Your task to perform on an android device: What time is it? Image 0: 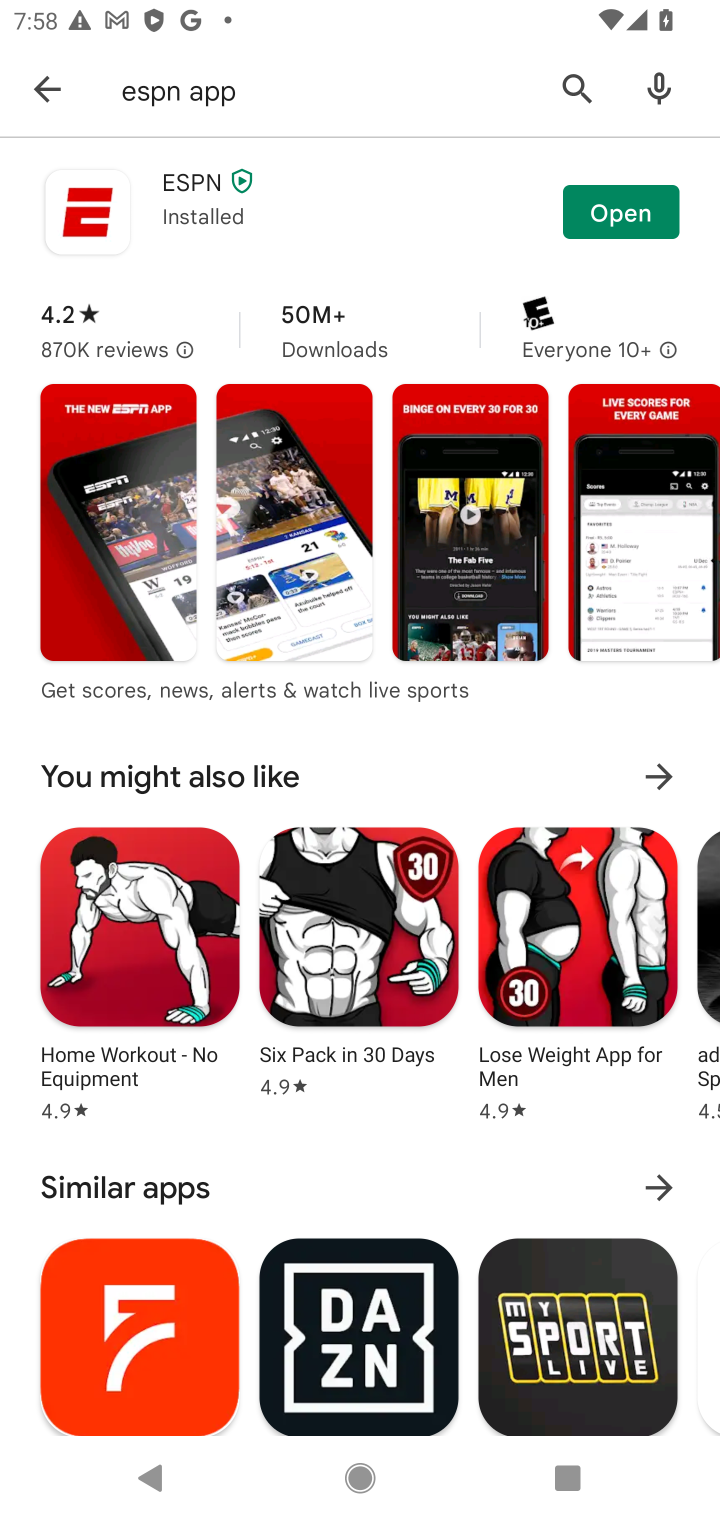
Step 0: press home button
Your task to perform on an android device: What time is it? Image 1: 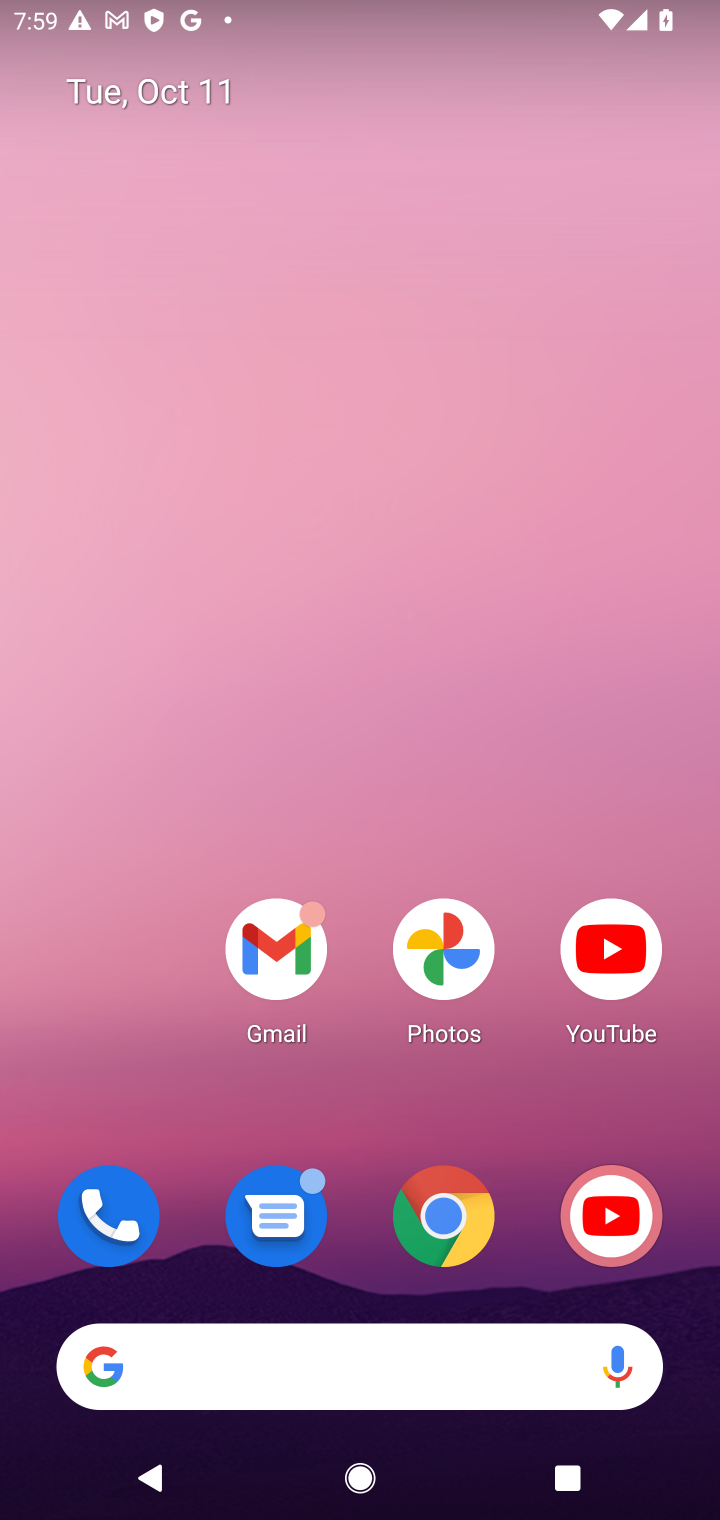
Step 1: drag from (394, 1197) to (368, 524)
Your task to perform on an android device: What time is it? Image 2: 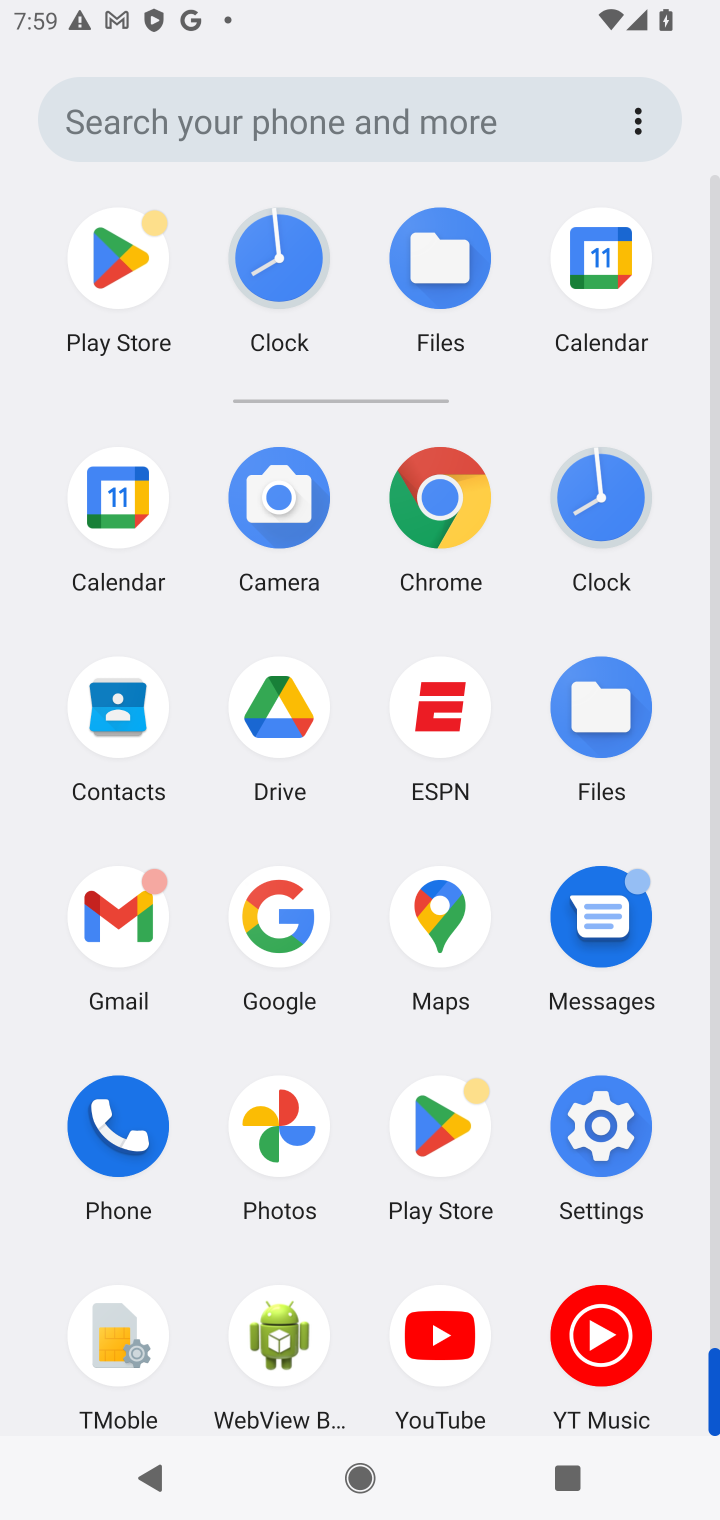
Step 2: click (636, 513)
Your task to perform on an android device: What time is it? Image 3: 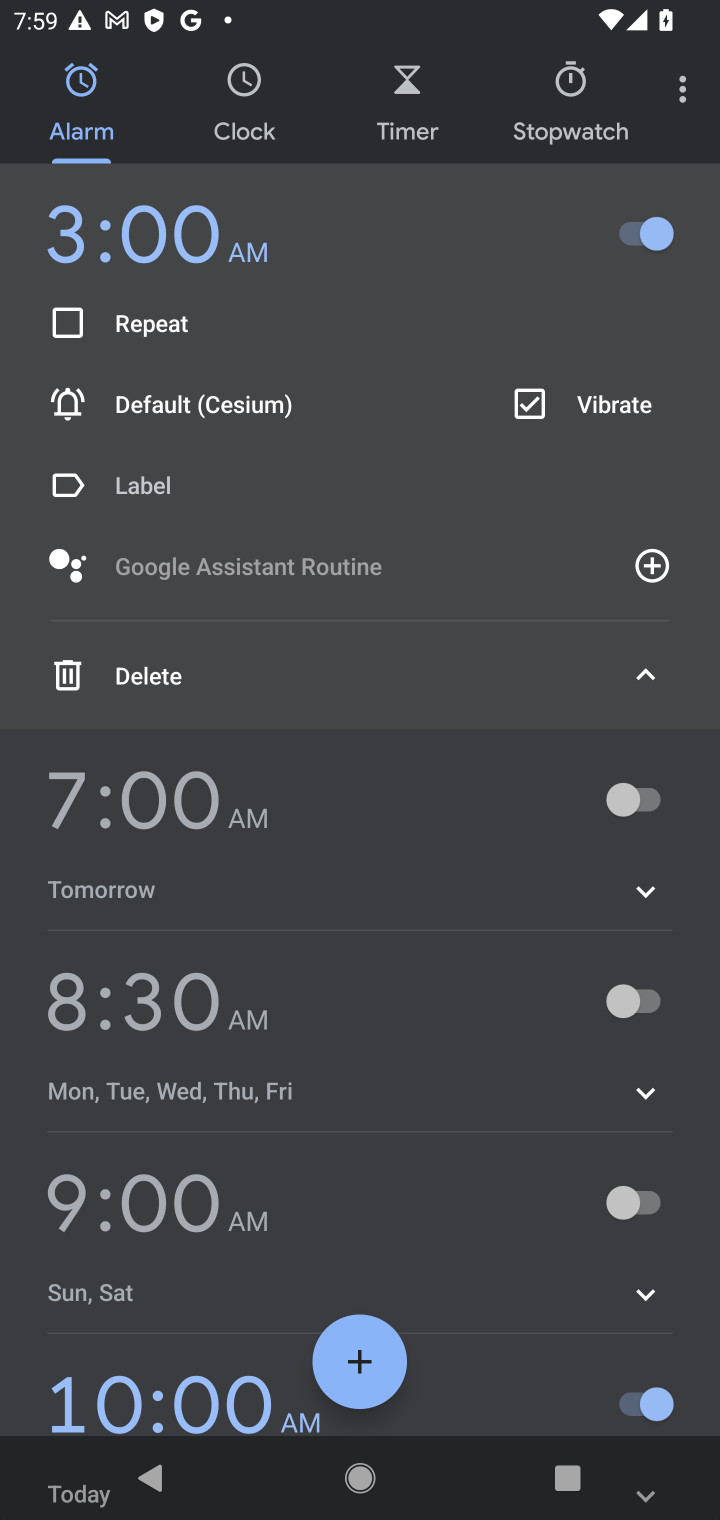
Step 3: click (251, 120)
Your task to perform on an android device: What time is it? Image 4: 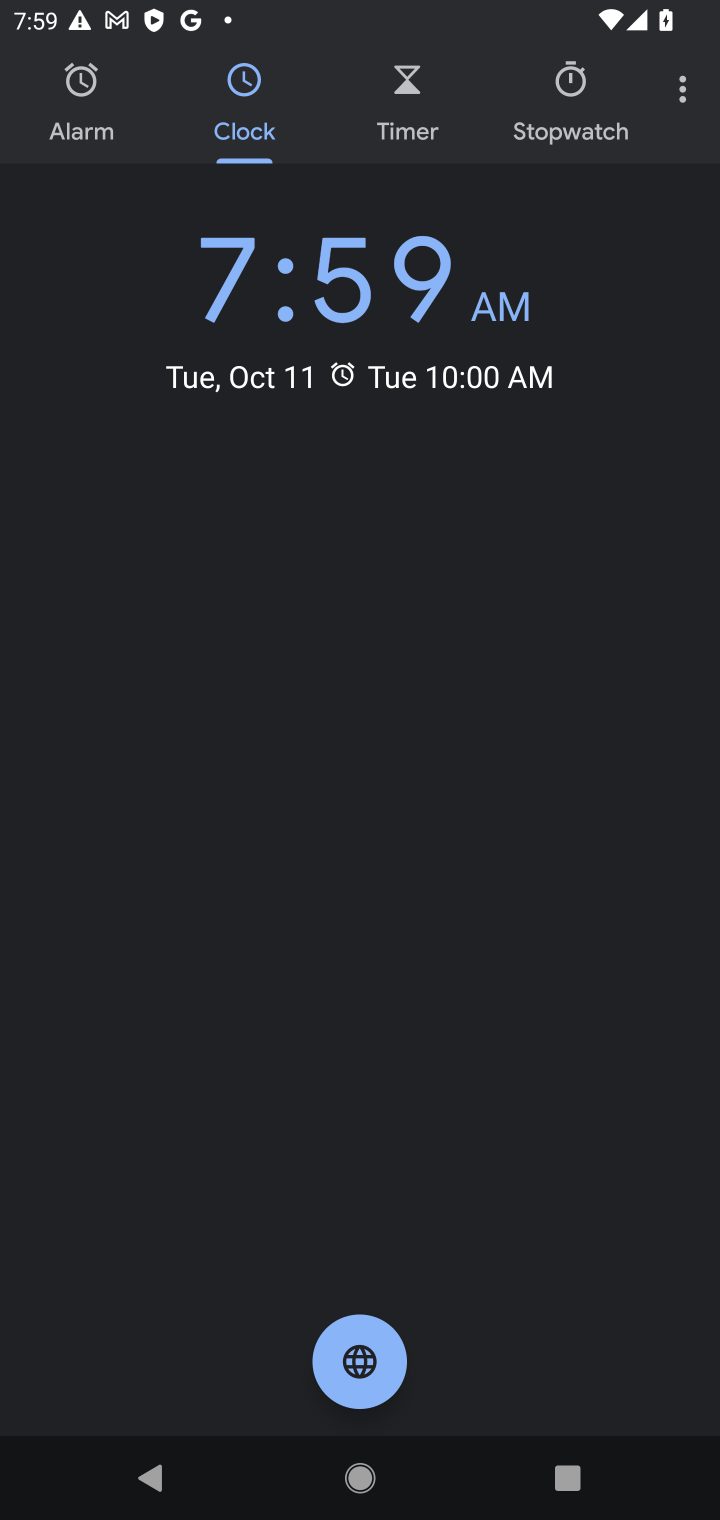
Step 4: task complete